Your task to perform on an android device: turn on sleep mode Image 0: 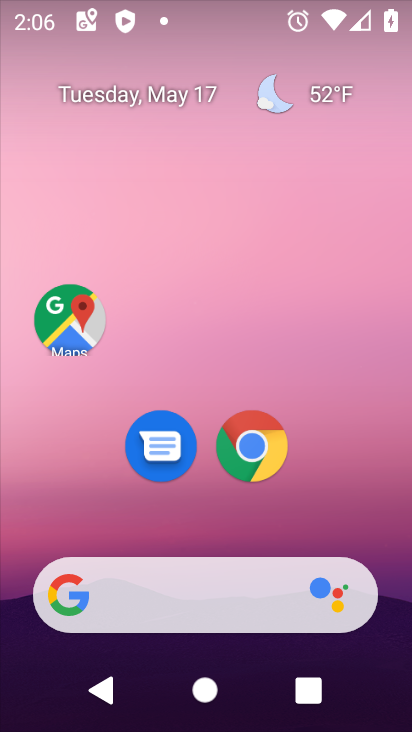
Step 0: drag from (170, 565) to (223, 198)
Your task to perform on an android device: turn on sleep mode Image 1: 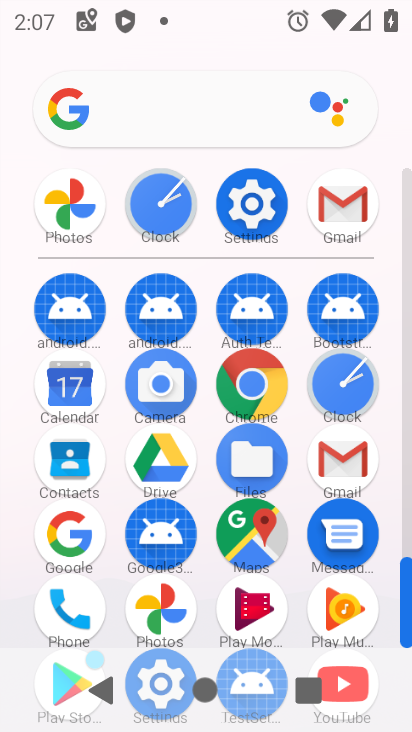
Step 1: click (254, 203)
Your task to perform on an android device: turn on sleep mode Image 2: 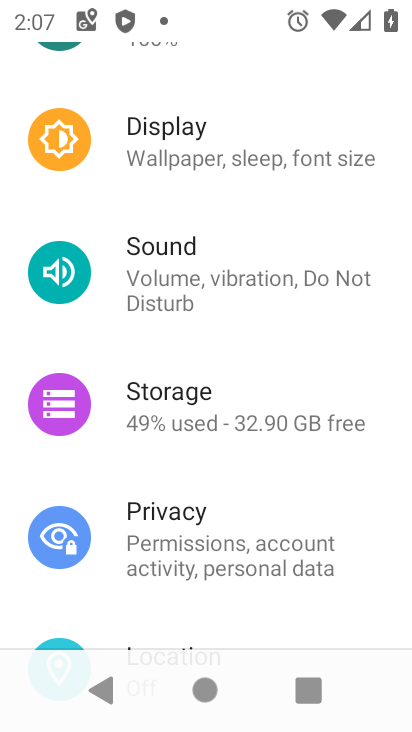
Step 2: click (260, 151)
Your task to perform on an android device: turn on sleep mode Image 3: 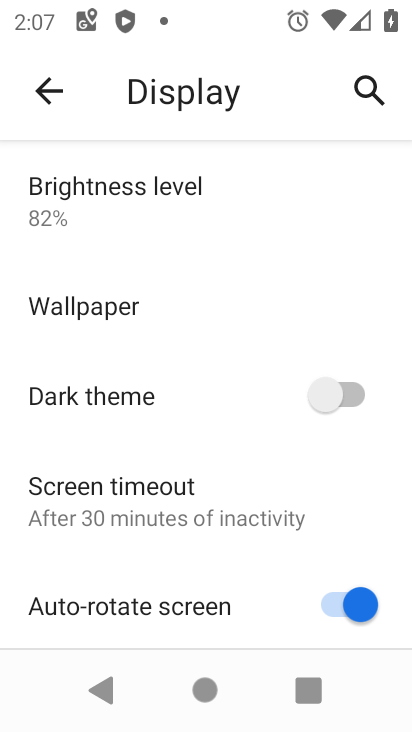
Step 3: task complete